Your task to perform on an android device: star an email in the gmail app Image 0: 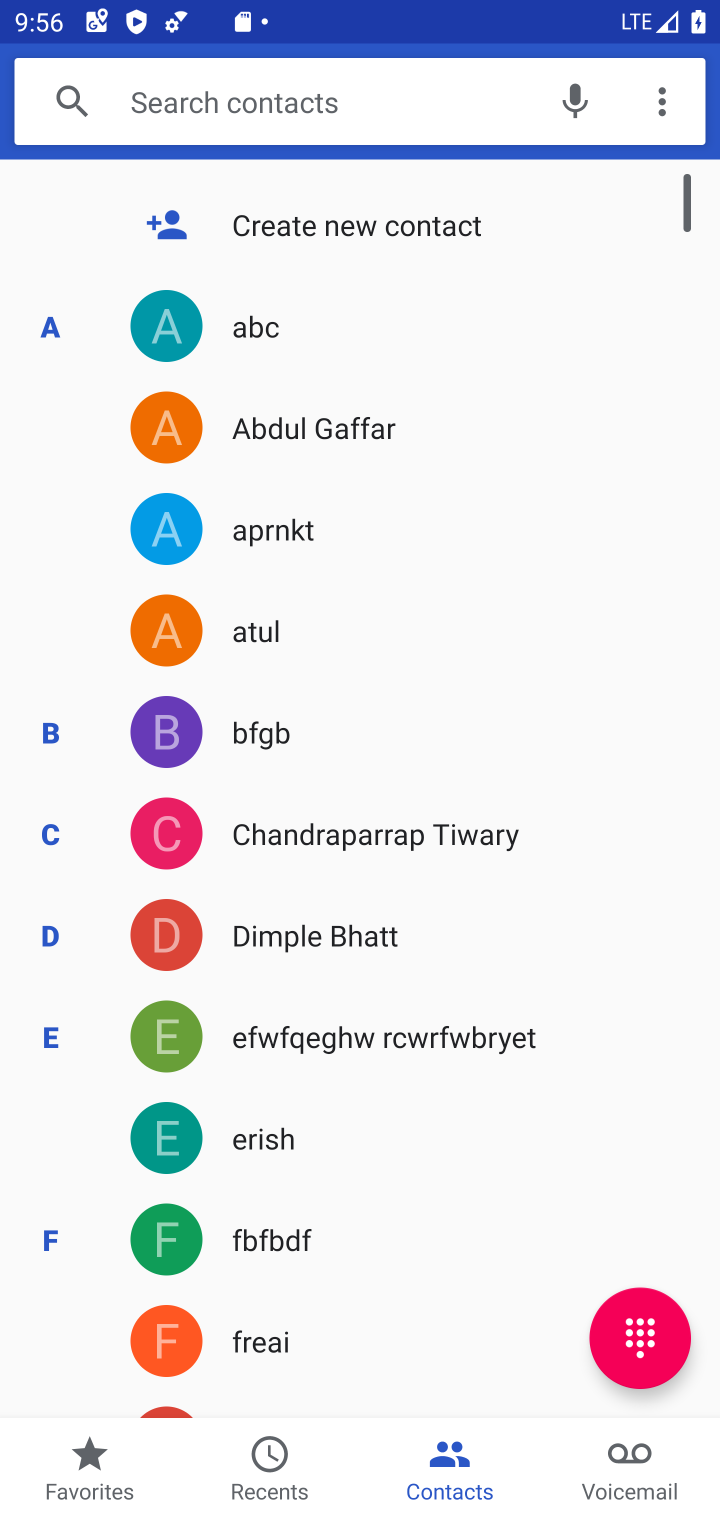
Step 0: press home button
Your task to perform on an android device: star an email in the gmail app Image 1: 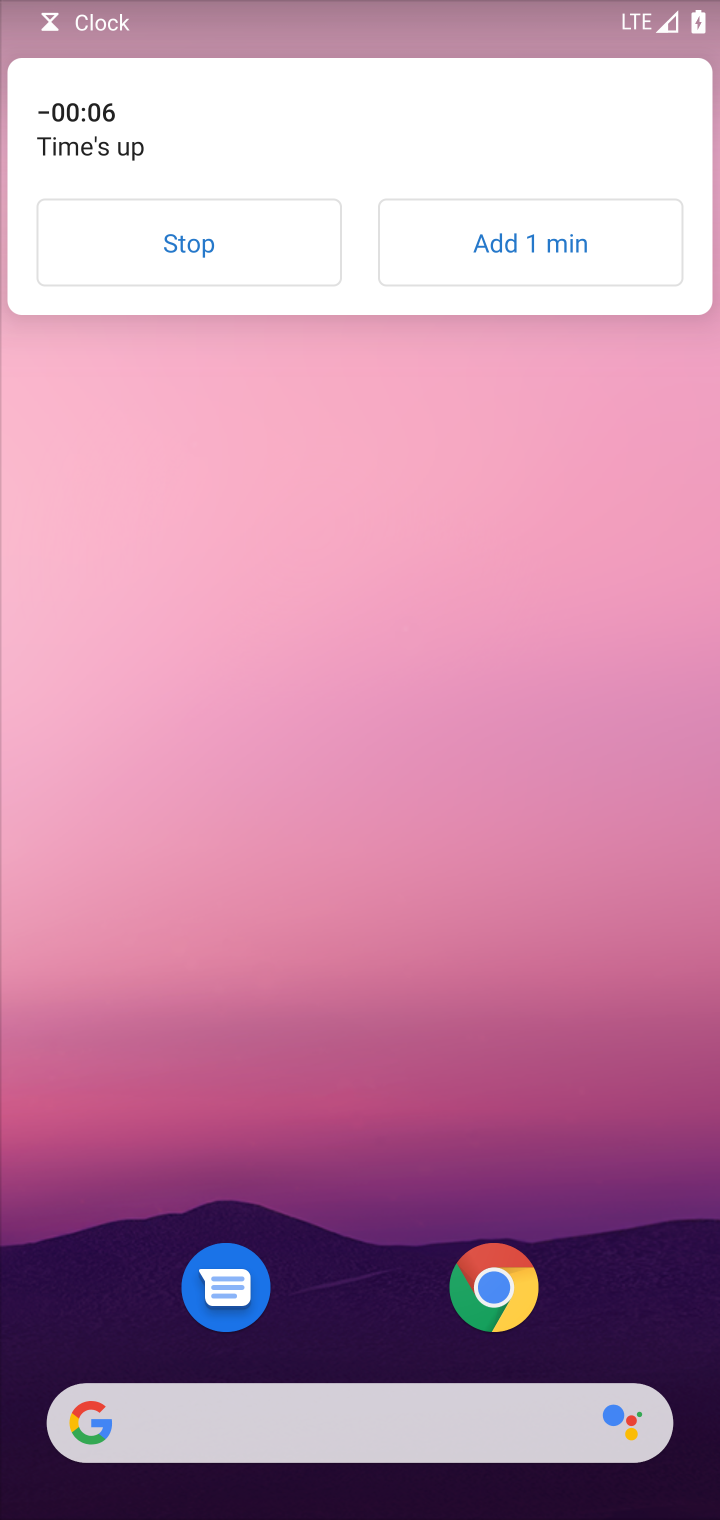
Step 1: drag from (356, 1302) to (361, 150)
Your task to perform on an android device: star an email in the gmail app Image 2: 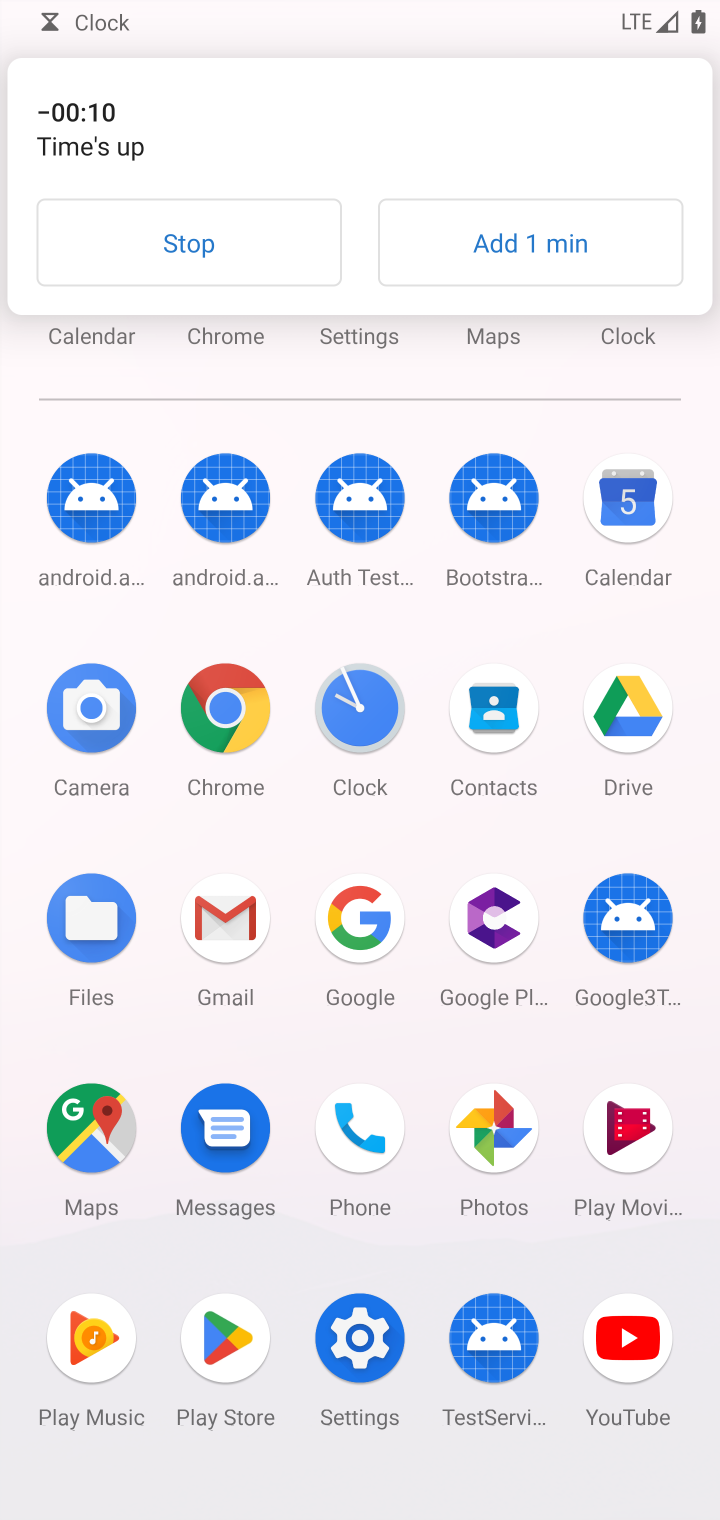
Step 2: click (213, 911)
Your task to perform on an android device: star an email in the gmail app Image 3: 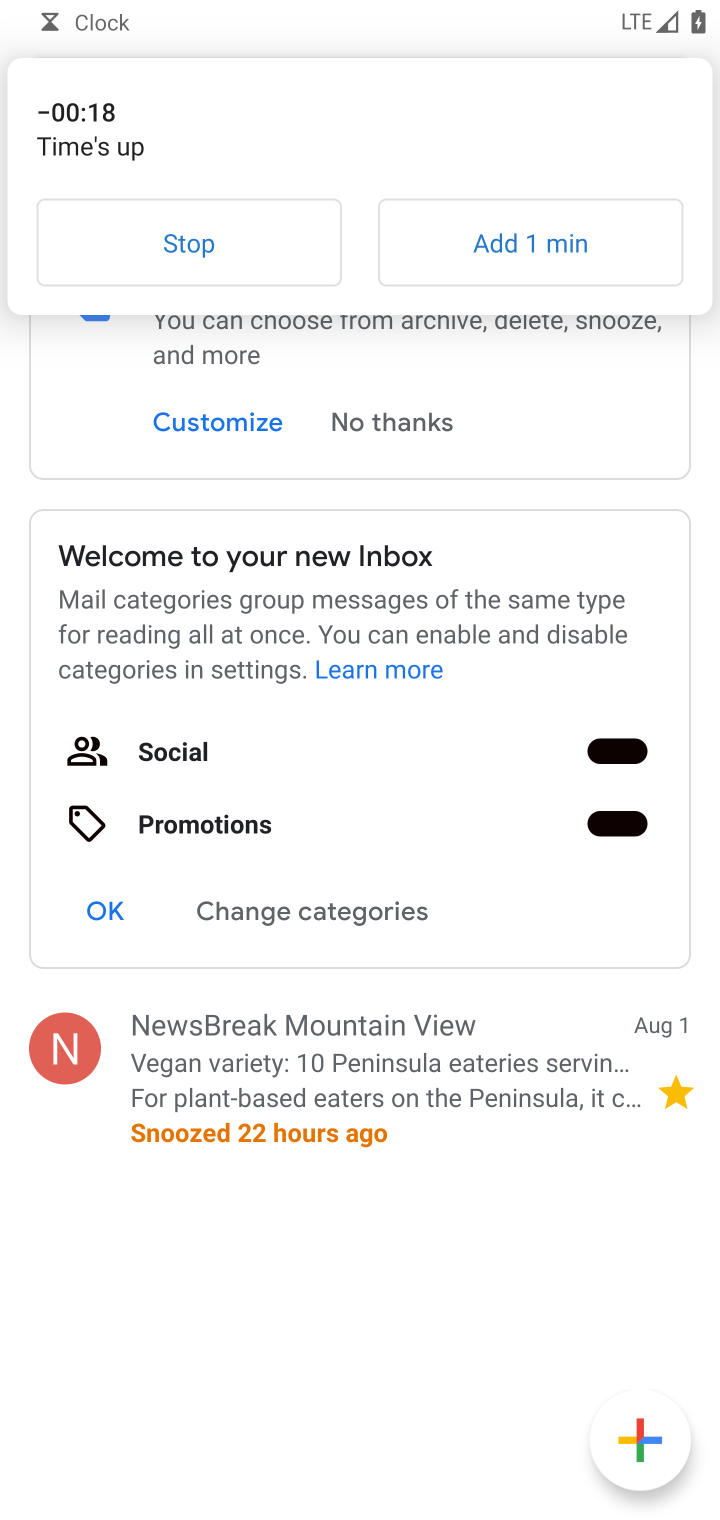
Step 3: task complete